Your task to perform on an android device: Open Amazon Image 0: 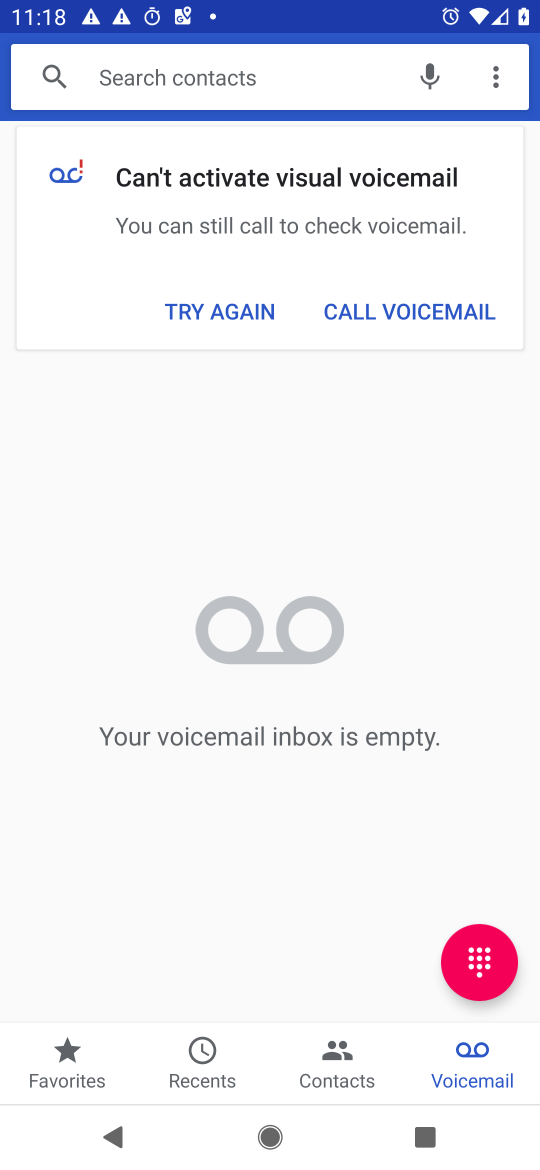
Step 0: press home button
Your task to perform on an android device: Open Amazon Image 1: 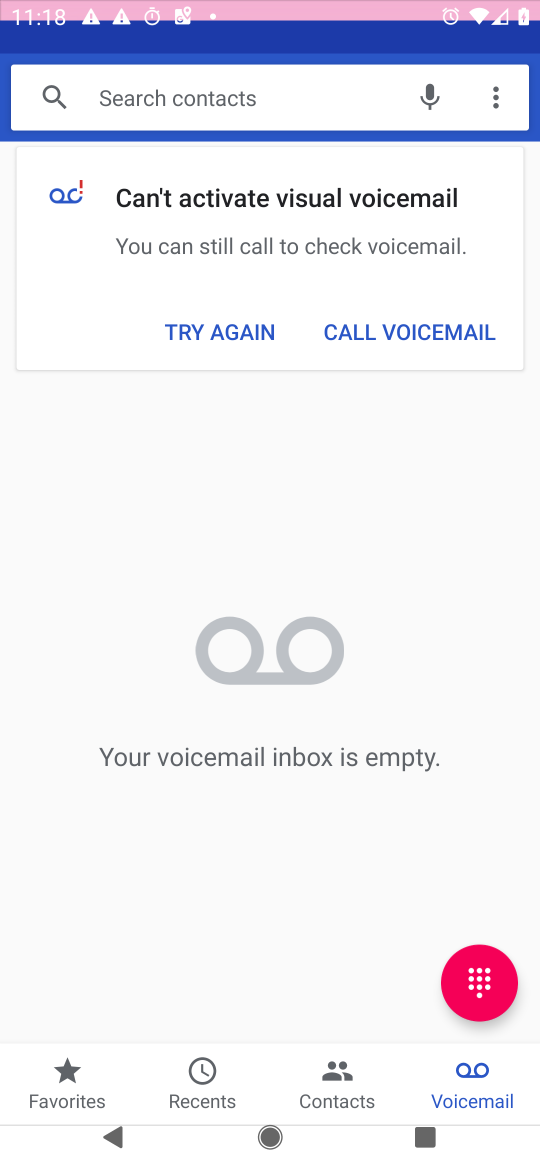
Step 1: drag from (501, 504) to (519, 708)
Your task to perform on an android device: Open Amazon Image 2: 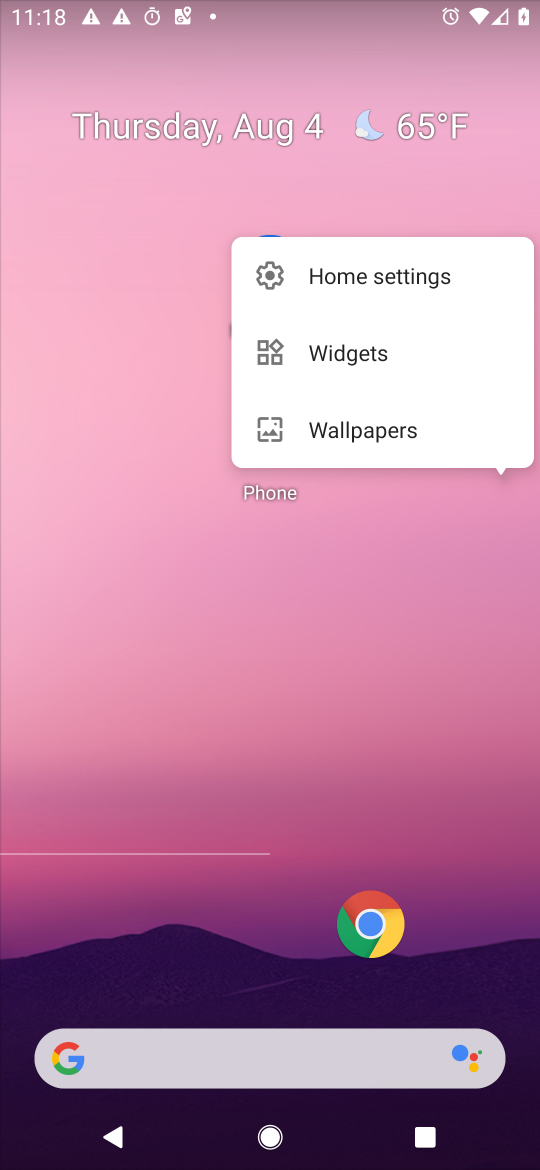
Step 2: click (358, 942)
Your task to perform on an android device: Open Amazon Image 3: 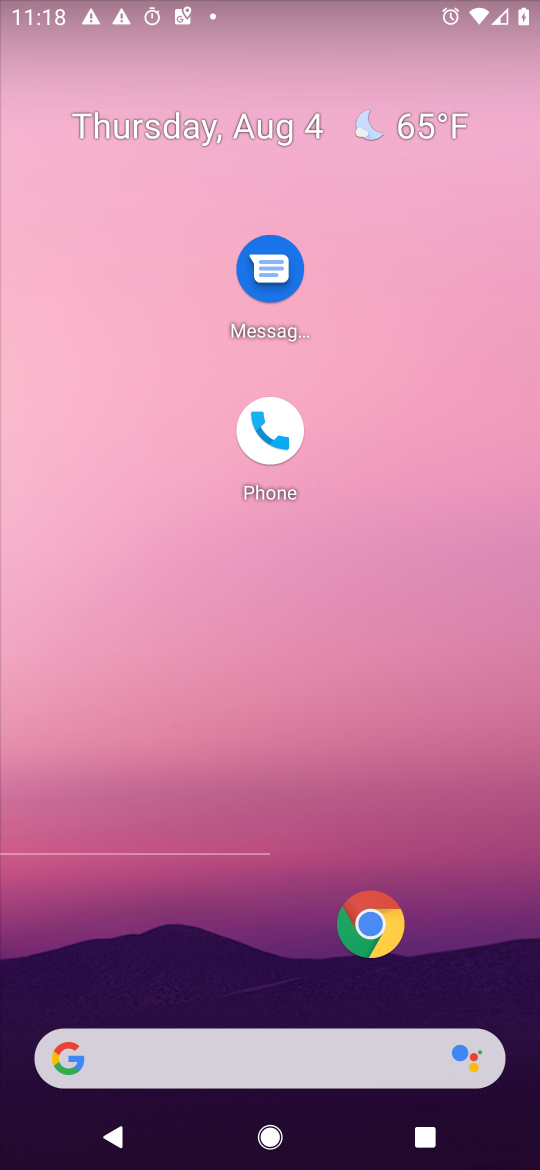
Step 3: click (408, 905)
Your task to perform on an android device: Open Amazon Image 4: 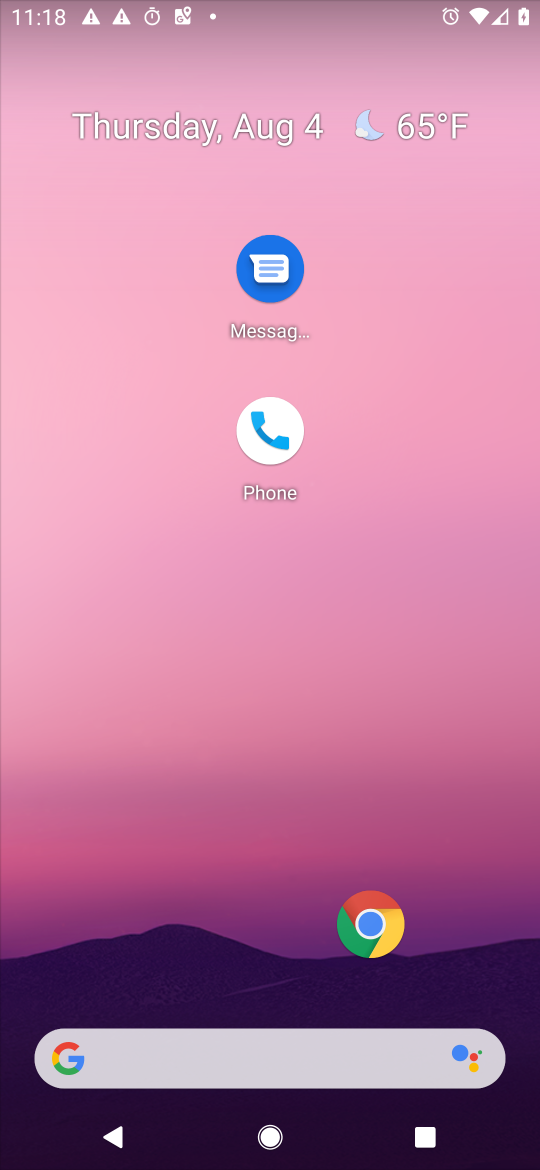
Step 4: click (369, 922)
Your task to perform on an android device: Open Amazon Image 5: 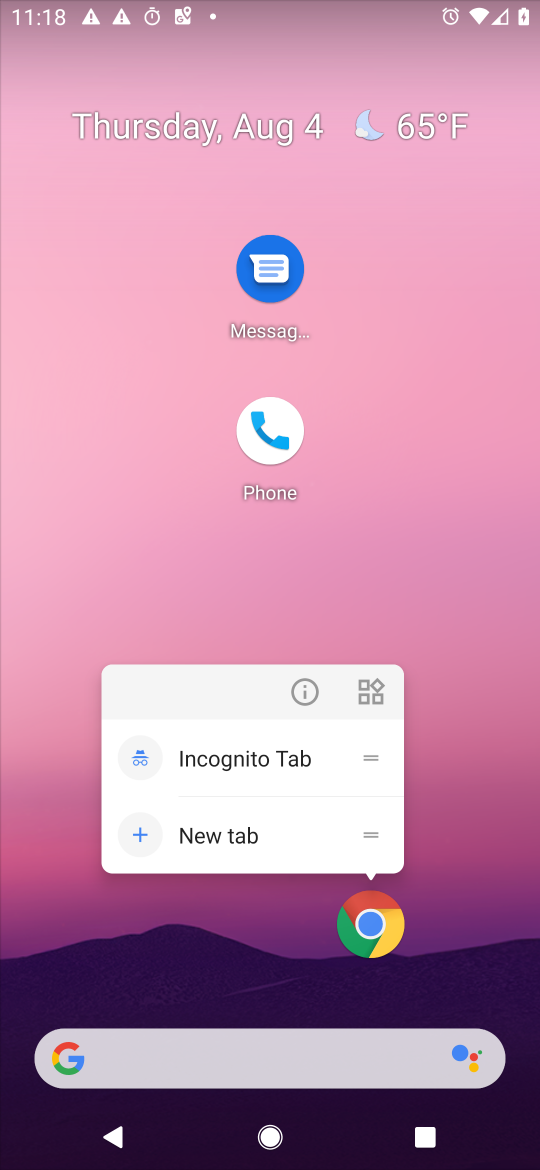
Step 5: click (302, 690)
Your task to perform on an android device: Open Amazon Image 6: 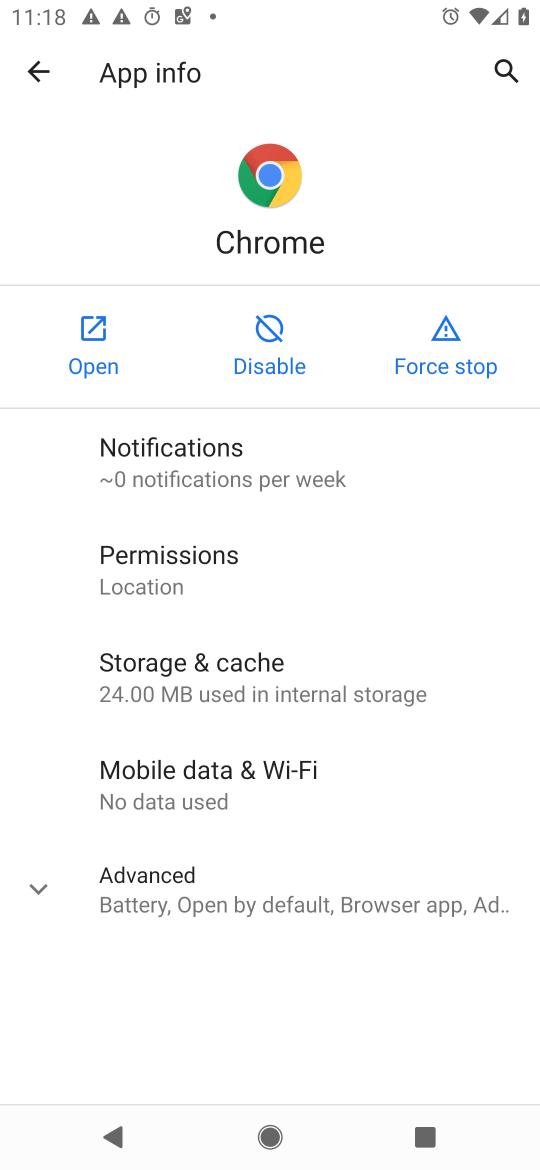
Step 6: click (84, 338)
Your task to perform on an android device: Open Amazon Image 7: 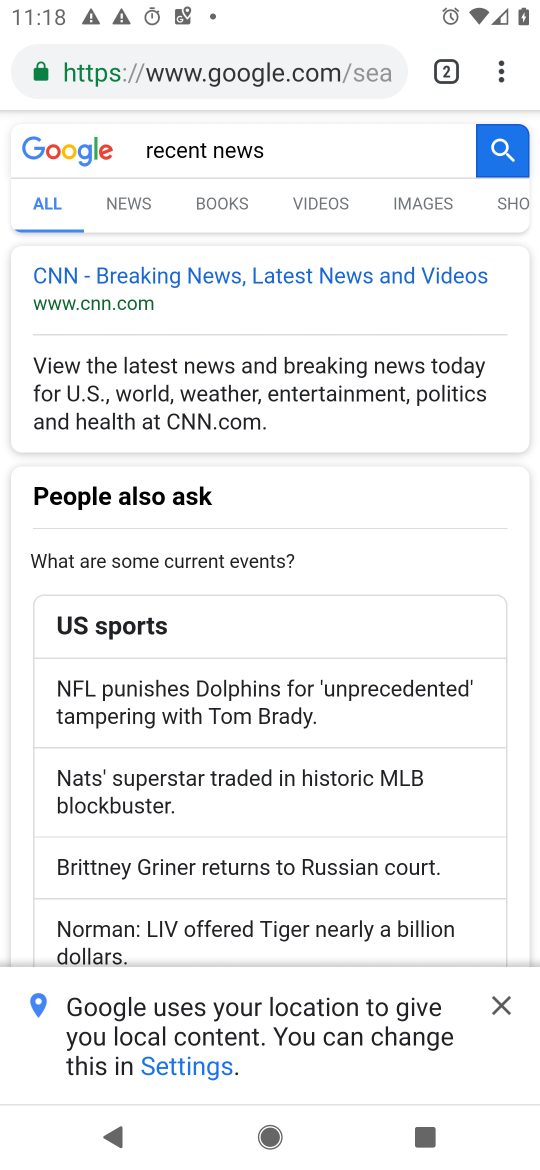
Step 7: drag from (266, 495) to (245, 1092)
Your task to perform on an android device: Open Amazon Image 8: 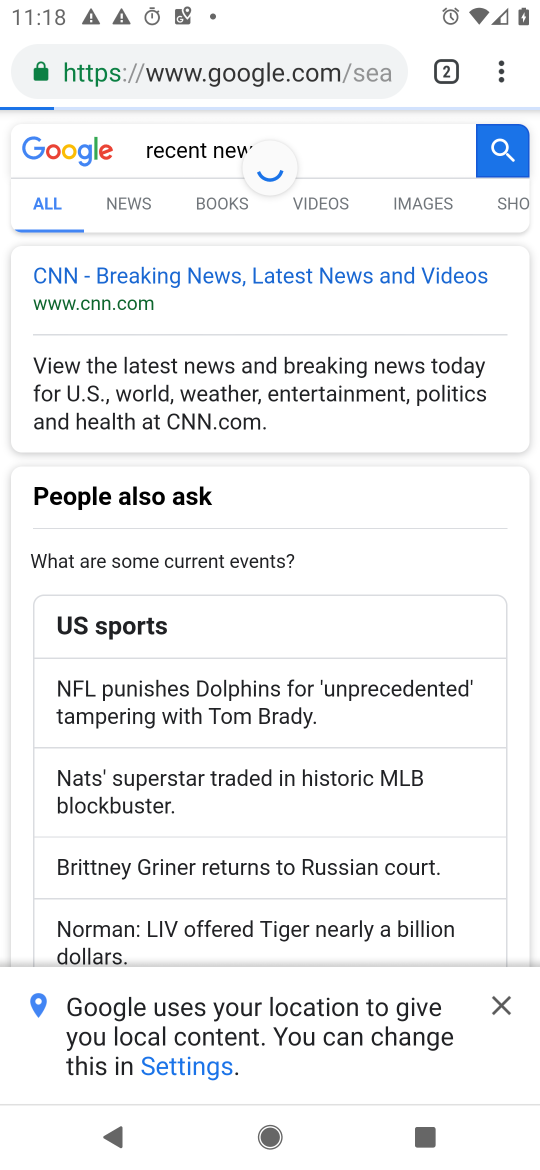
Step 8: click (204, 77)
Your task to perform on an android device: Open Amazon Image 9: 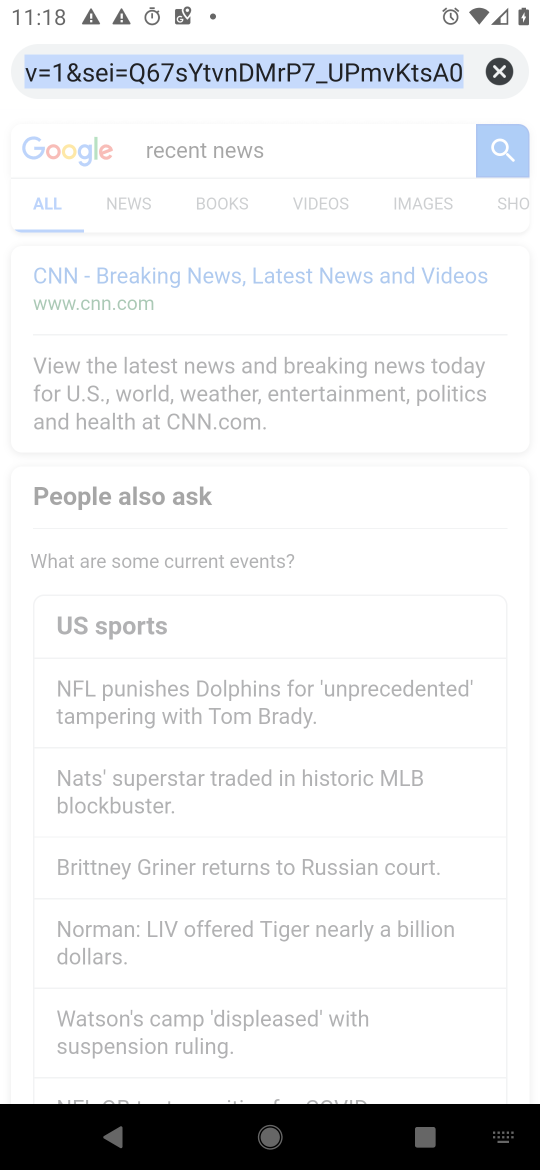
Step 9: click (501, 69)
Your task to perform on an android device: Open Amazon Image 10: 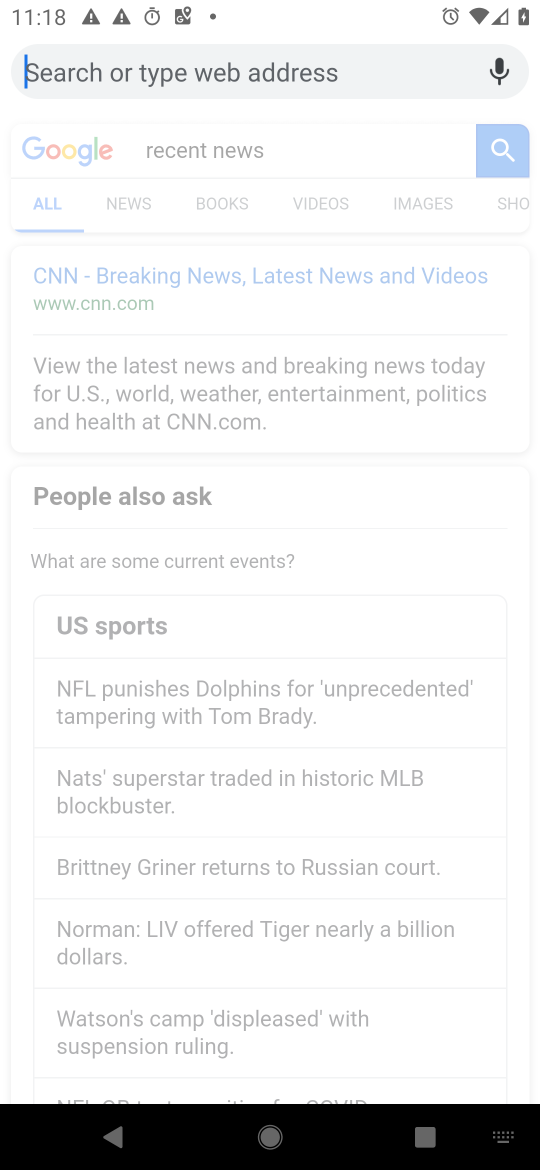
Step 10: type "amazon"
Your task to perform on an android device: Open Amazon Image 11: 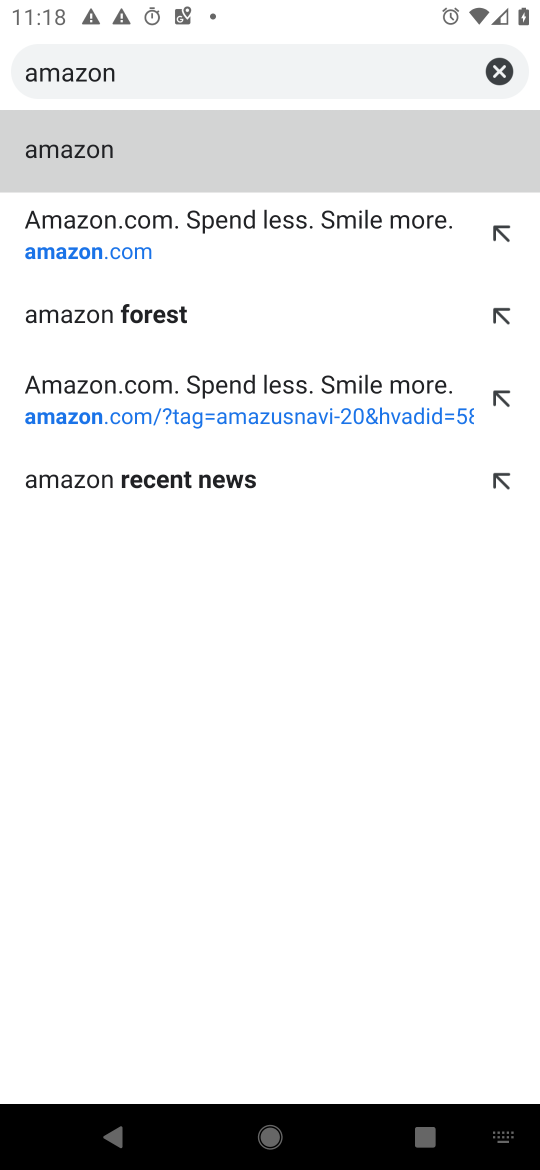
Step 11: click (142, 230)
Your task to perform on an android device: Open Amazon Image 12: 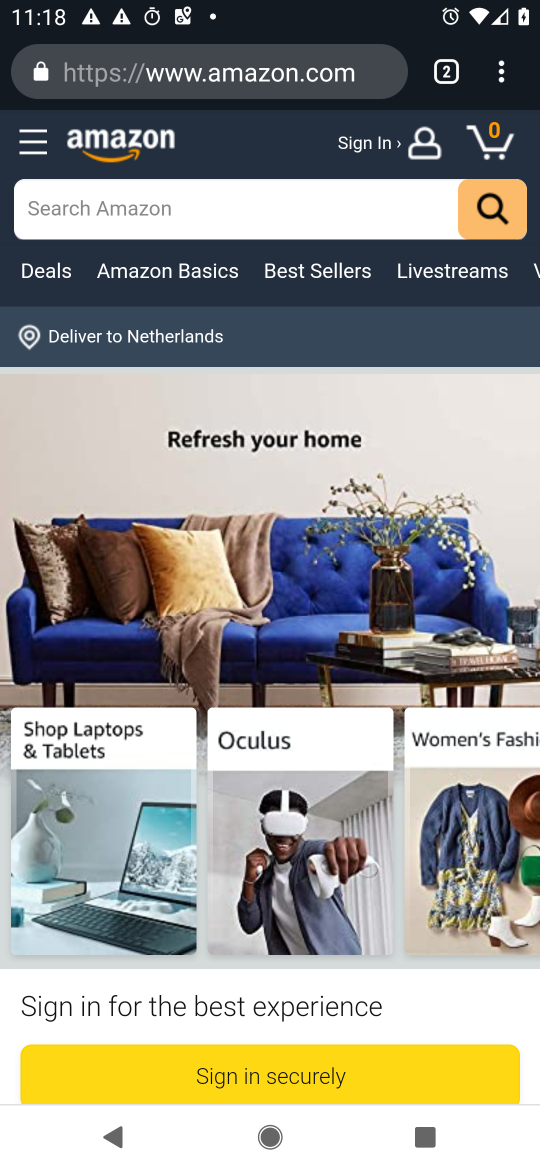
Step 12: task complete